Your task to perform on an android device: Go to network settings Image 0: 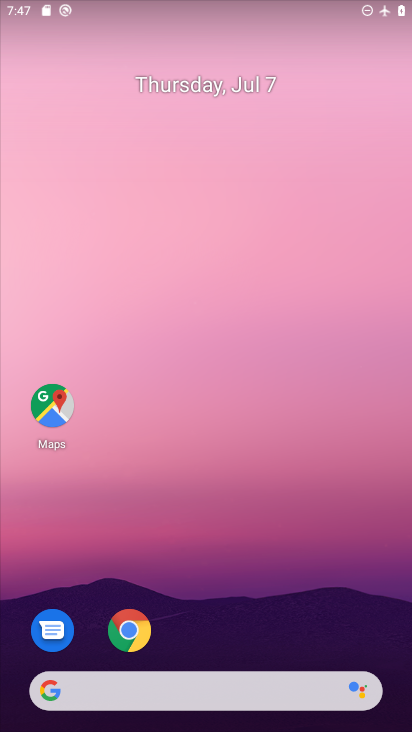
Step 0: drag from (289, 543) to (203, 124)
Your task to perform on an android device: Go to network settings Image 1: 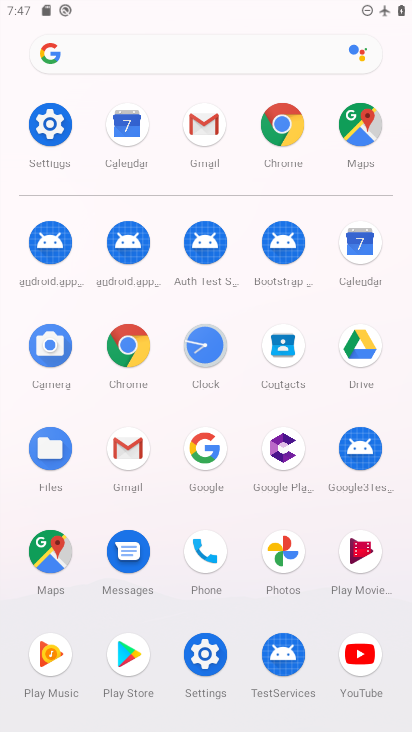
Step 1: click (46, 122)
Your task to perform on an android device: Go to network settings Image 2: 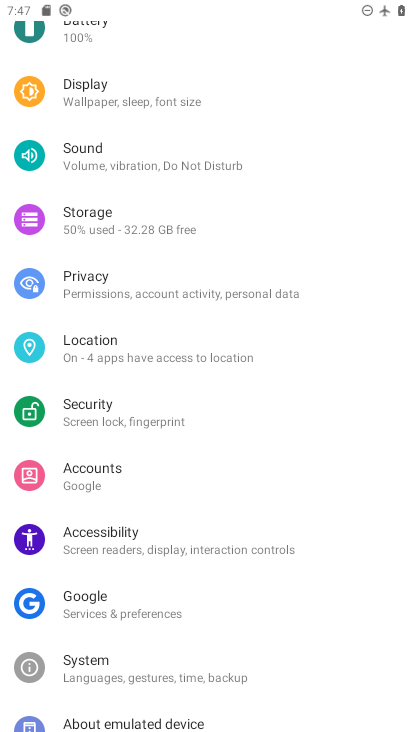
Step 2: drag from (255, 129) to (336, 673)
Your task to perform on an android device: Go to network settings Image 3: 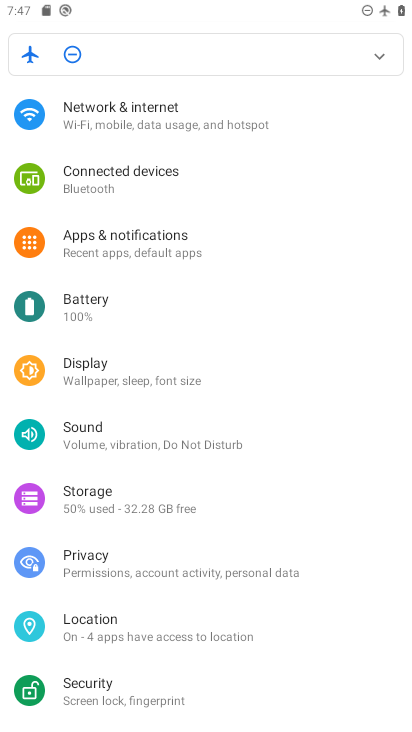
Step 3: click (159, 117)
Your task to perform on an android device: Go to network settings Image 4: 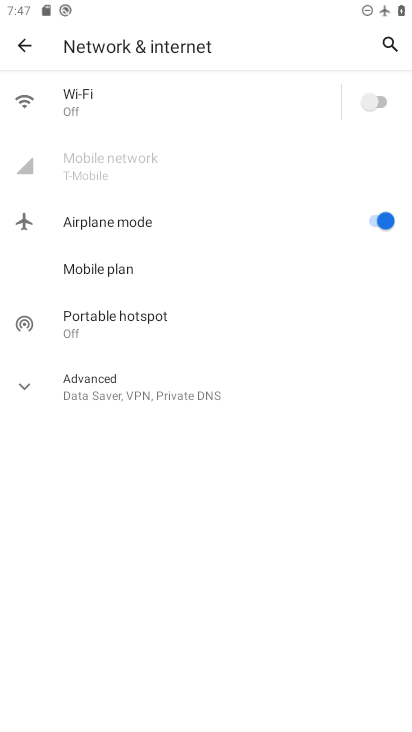
Step 4: task complete